Your task to perform on an android device: change keyboard looks Image 0: 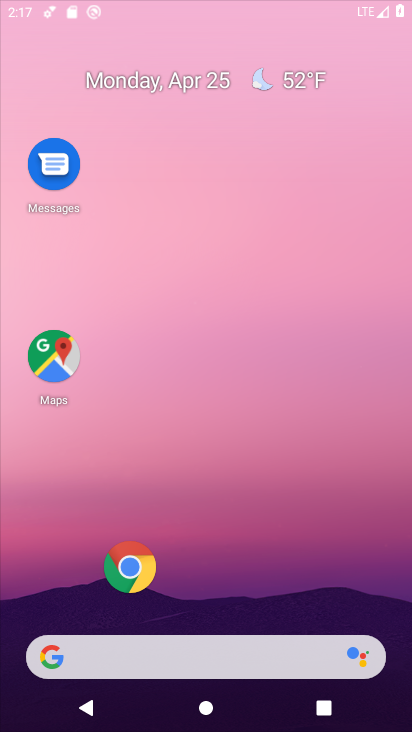
Step 0: drag from (242, 597) to (249, 203)
Your task to perform on an android device: change keyboard looks Image 1: 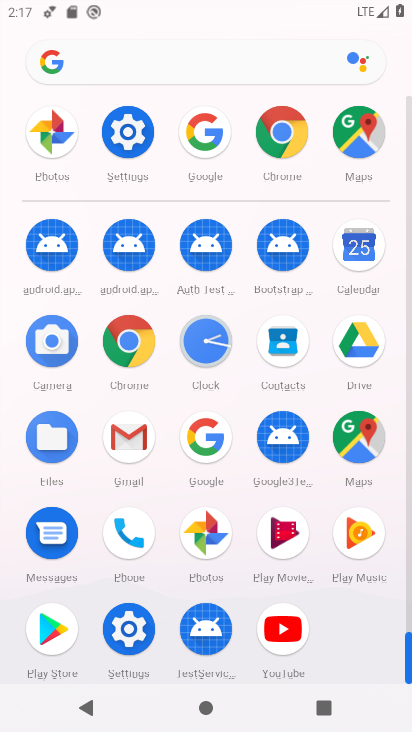
Step 1: click (135, 162)
Your task to perform on an android device: change keyboard looks Image 2: 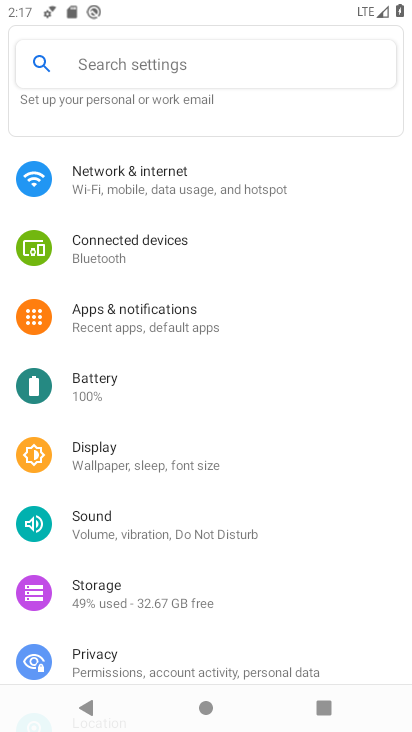
Step 2: drag from (143, 547) to (223, 206)
Your task to perform on an android device: change keyboard looks Image 3: 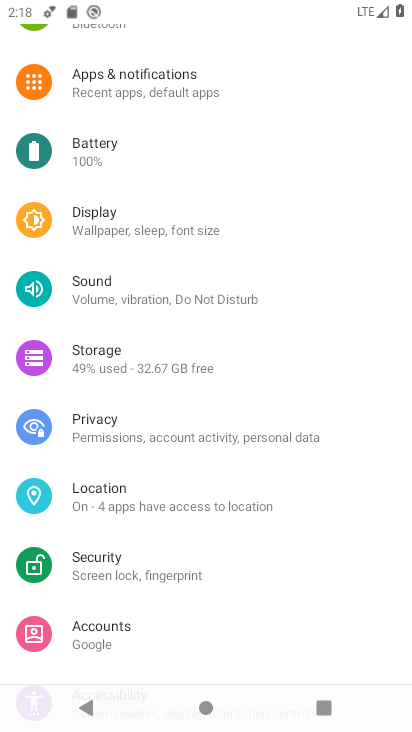
Step 3: drag from (290, 556) to (314, 167)
Your task to perform on an android device: change keyboard looks Image 4: 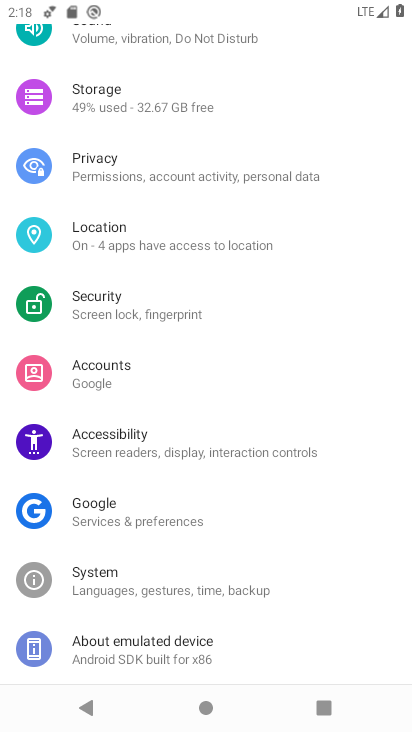
Step 4: click (156, 600)
Your task to perform on an android device: change keyboard looks Image 5: 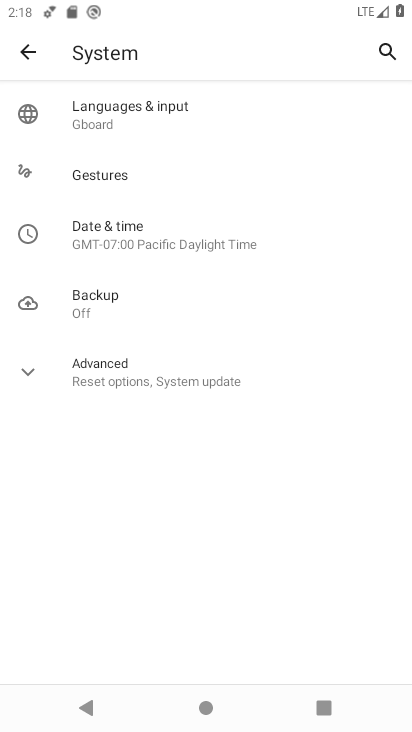
Step 5: click (130, 115)
Your task to perform on an android device: change keyboard looks Image 6: 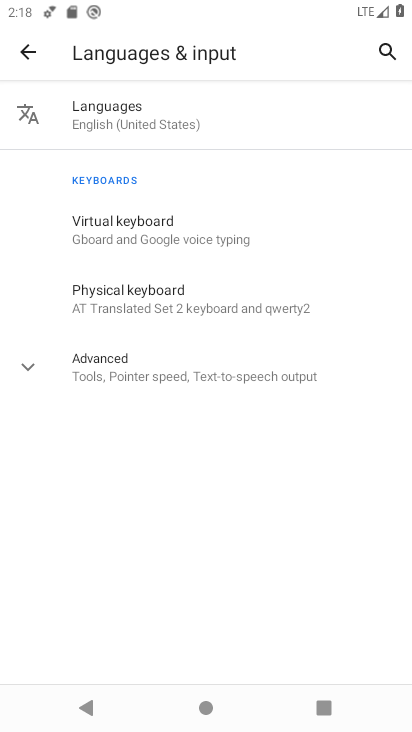
Step 6: click (149, 233)
Your task to perform on an android device: change keyboard looks Image 7: 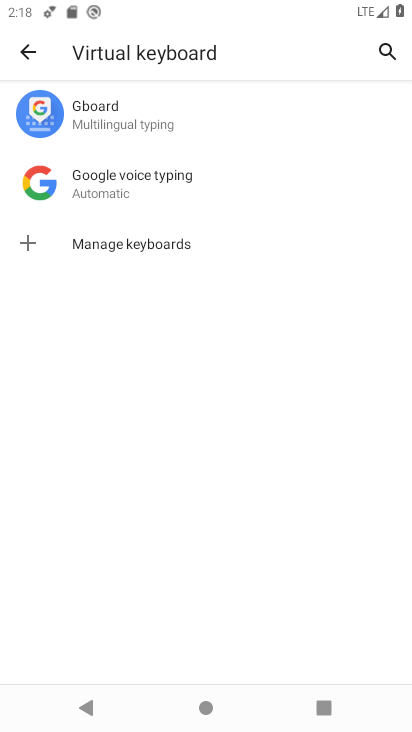
Step 7: click (187, 122)
Your task to perform on an android device: change keyboard looks Image 8: 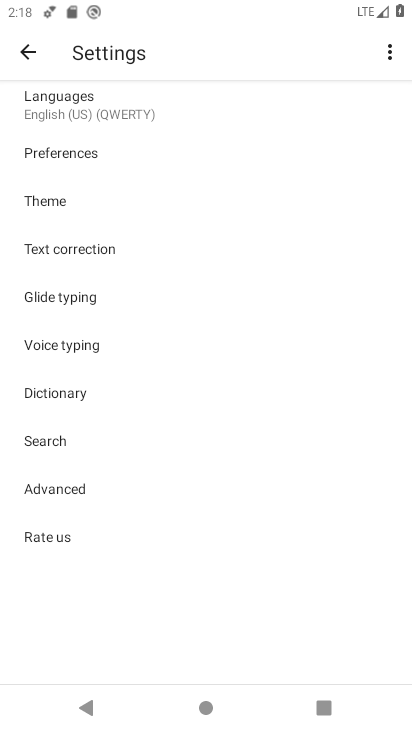
Step 8: click (80, 208)
Your task to perform on an android device: change keyboard looks Image 9: 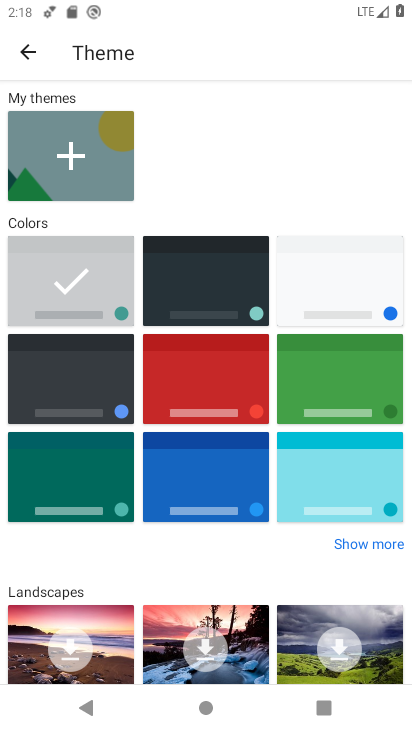
Step 9: click (175, 284)
Your task to perform on an android device: change keyboard looks Image 10: 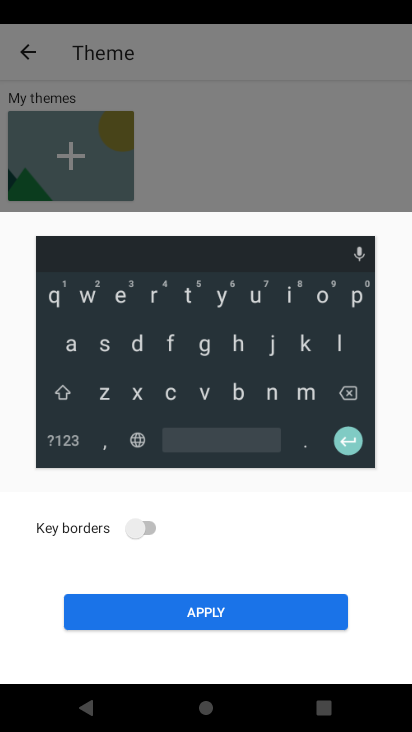
Step 10: click (208, 609)
Your task to perform on an android device: change keyboard looks Image 11: 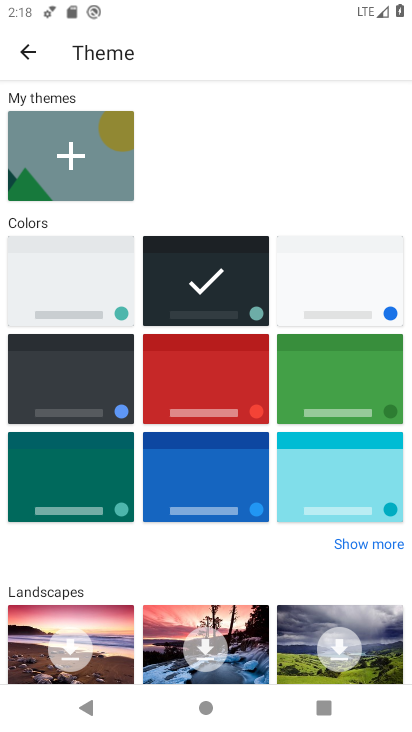
Step 11: task complete